Your task to perform on an android device: remove spam from my inbox in the gmail app Image 0: 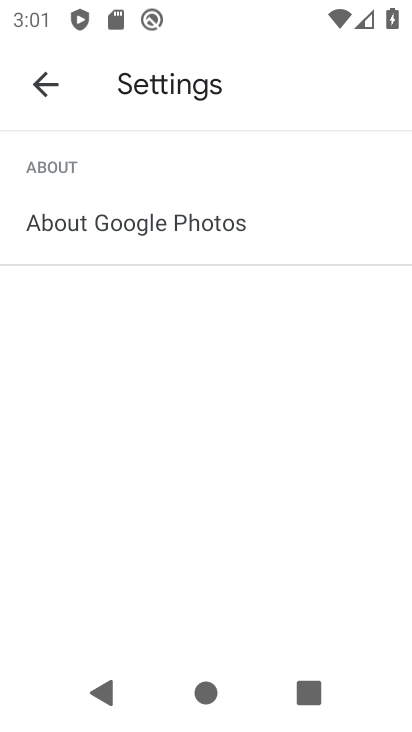
Step 0: press home button
Your task to perform on an android device: remove spam from my inbox in the gmail app Image 1: 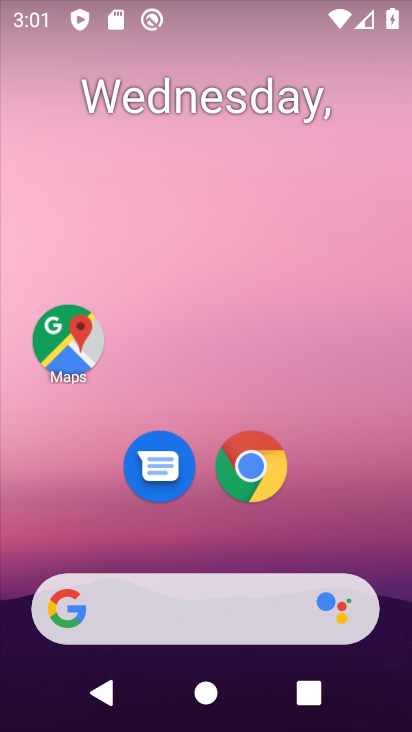
Step 1: drag from (393, 612) to (350, 242)
Your task to perform on an android device: remove spam from my inbox in the gmail app Image 2: 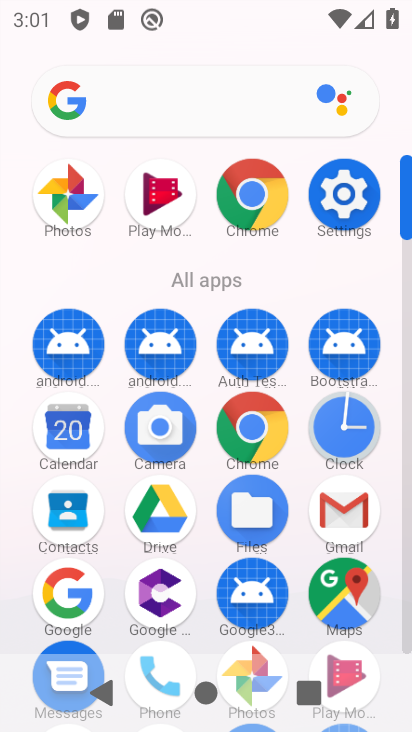
Step 2: click (405, 644)
Your task to perform on an android device: remove spam from my inbox in the gmail app Image 3: 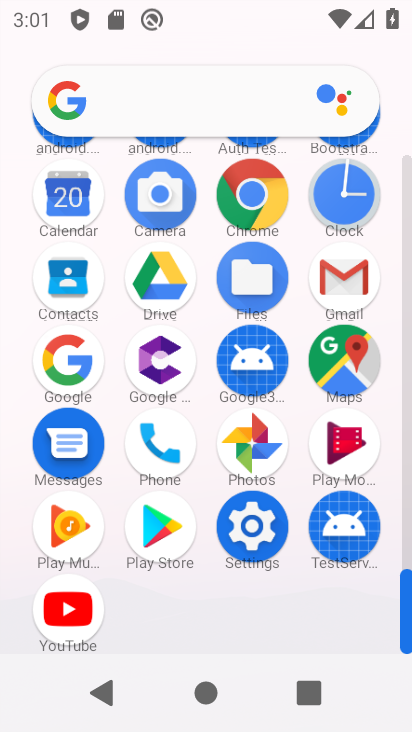
Step 3: click (342, 274)
Your task to perform on an android device: remove spam from my inbox in the gmail app Image 4: 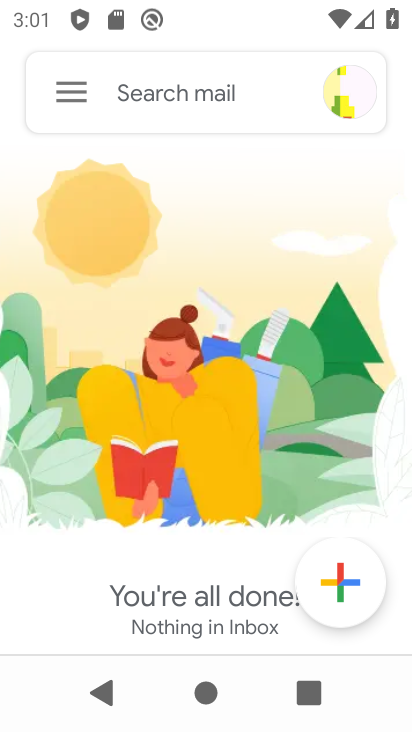
Step 4: click (67, 92)
Your task to perform on an android device: remove spam from my inbox in the gmail app Image 5: 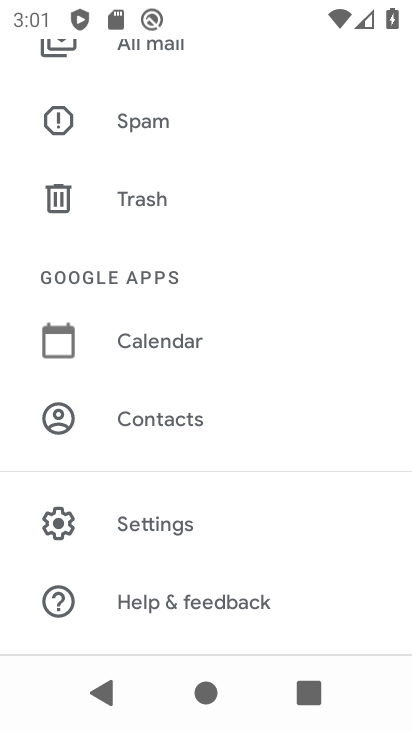
Step 5: click (134, 121)
Your task to perform on an android device: remove spam from my inbox in the gmail app Image 6: 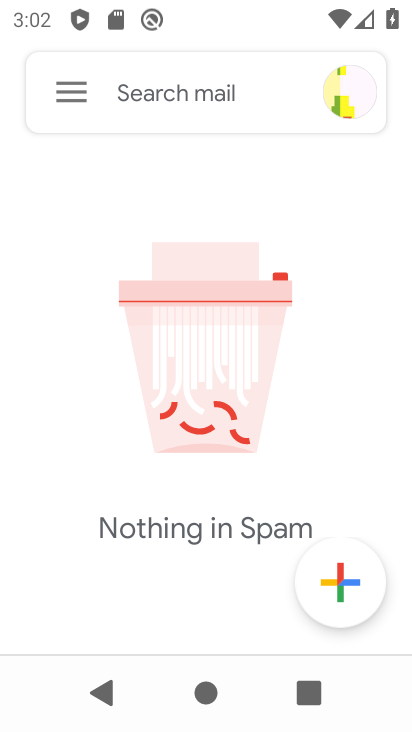
Step 6: task complete